Your task to perform on an android device: What's the weather going to be this weekend? Image 0: 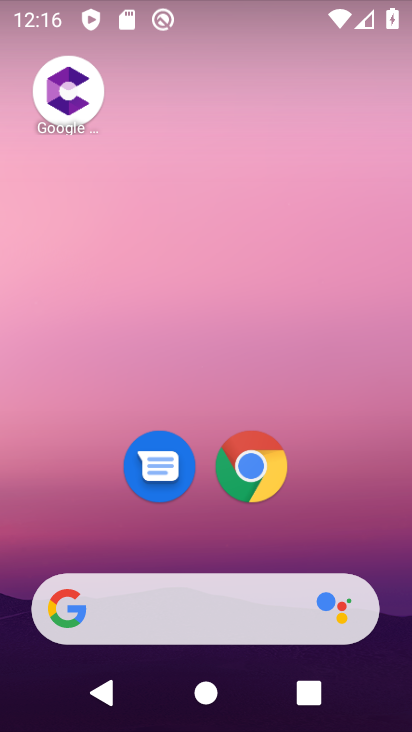
Step 0: click (231, 473)
Your task to perform on an android device: What's the weather going to be this weekend? Image 1: 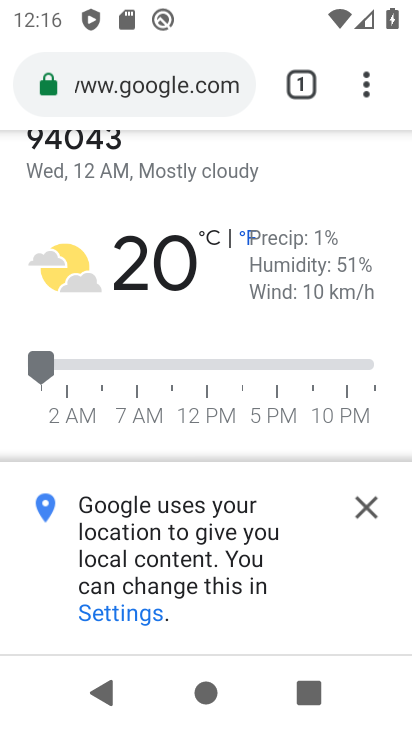
Step 1: click (182, 99)
Your task to perform on an android device: What's the weather going to be this weekend? Image 2: 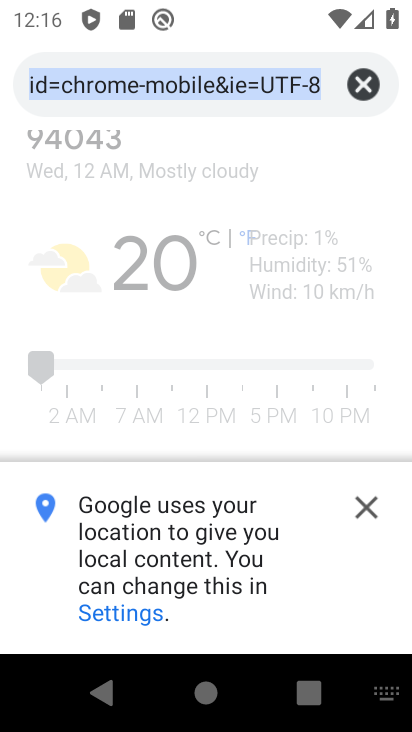
Step 2: click (364, 80)
Your task to perform on an android device: What's the weather going to be this weekend? Image 3: 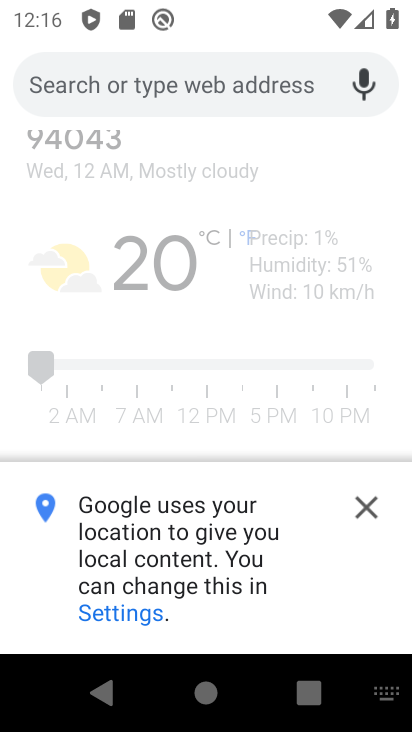
Step 3: type "What's the weather going to be this weekend?"
Your task to perform on an android device: What's the weather going to be this weekend? Image 4: 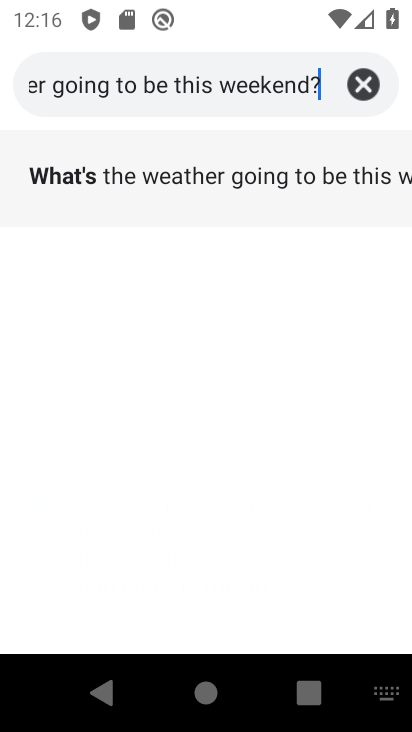
Step 4: type ""
Your task to perform on an android device: What's the weather going to be this weekend? Image 5: 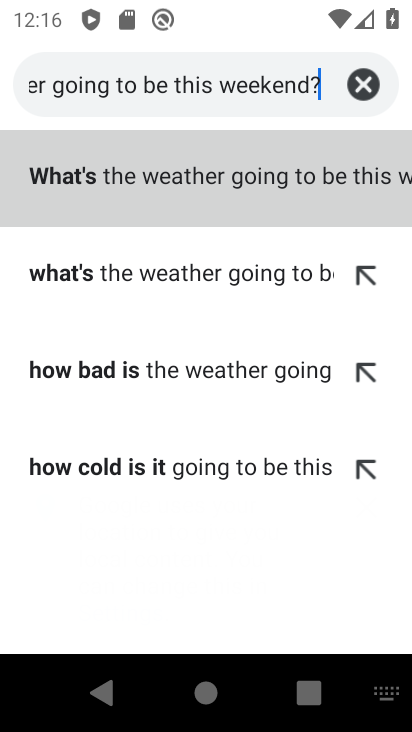
Step 5: click (129, 175)
Your task to perform on an android device: What's the weather going to be this weekend? Image 6: 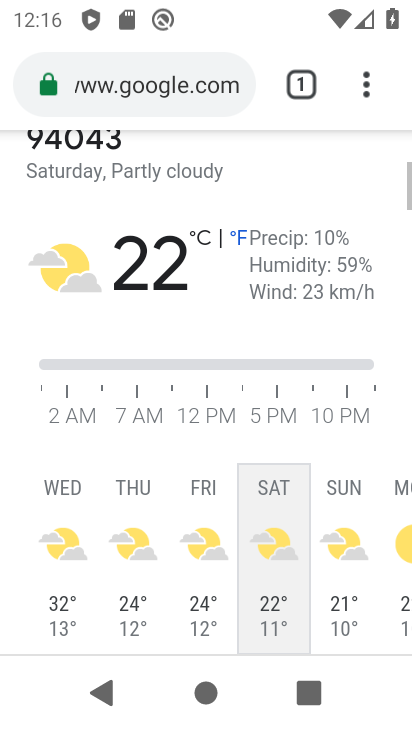
Step 6: task complete